Your task to perform on an android device: Open settings on Google Maps Image 0: 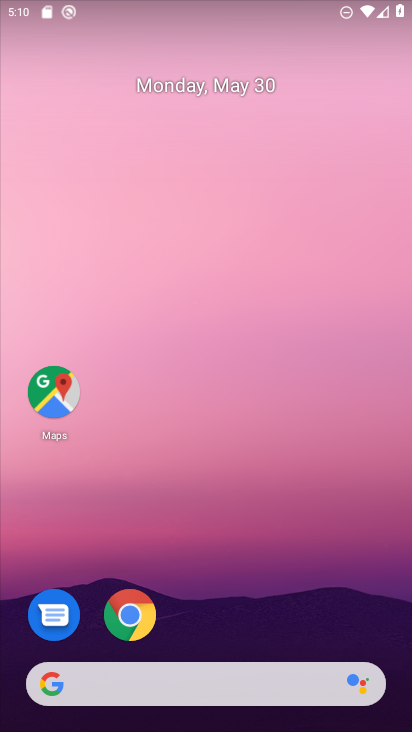
Step 0: click (44, 373)
Your task to perform on an android device: Open settings on Google Maps Image 1: 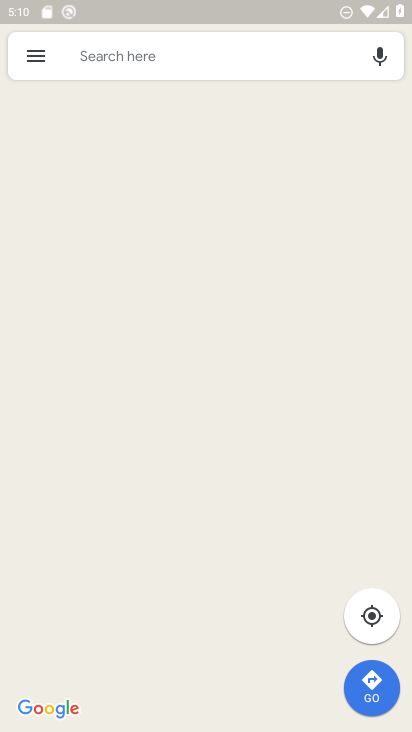
Step 1: click (30, 56)
Your task to perform on an android device: Open settings on Google Maps Image 2: 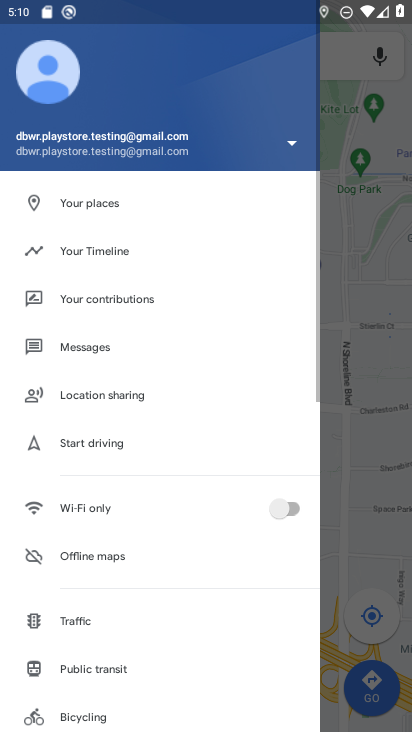
Step 2: drag from (115, 647) to (187, 123)
Your task to perform on an android device: Open settings on Google Maps Image 3: 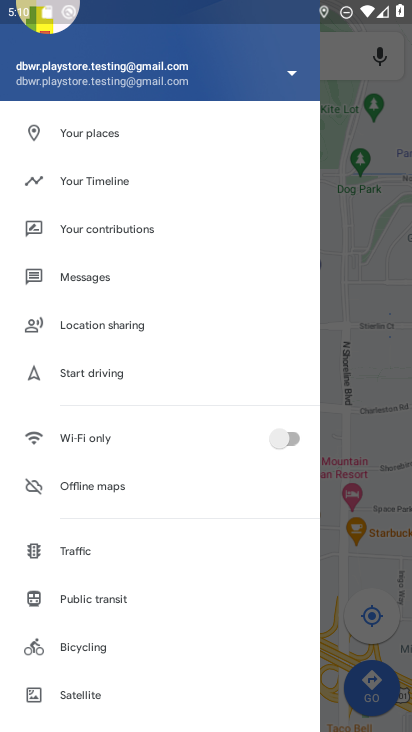
Step 3: drag from (69, 700) to (164, 108)
Your task to perform on an android device: Open settings on Google Maps Image 4: 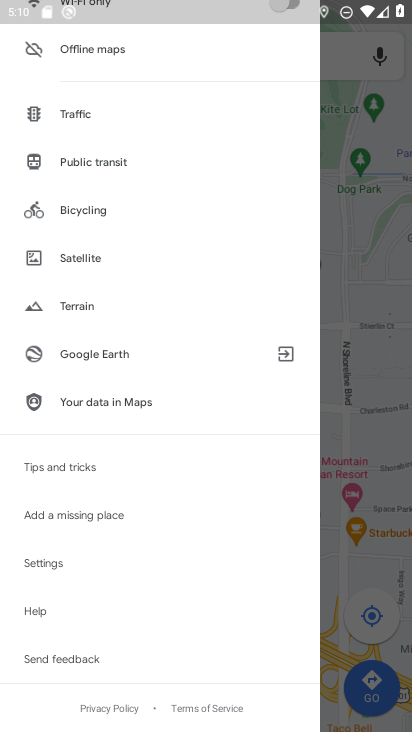
Step 4: drag from (92, 654) to (153, 72)
Your task to perform on an android device: Open settings on Google Maps Image 5: 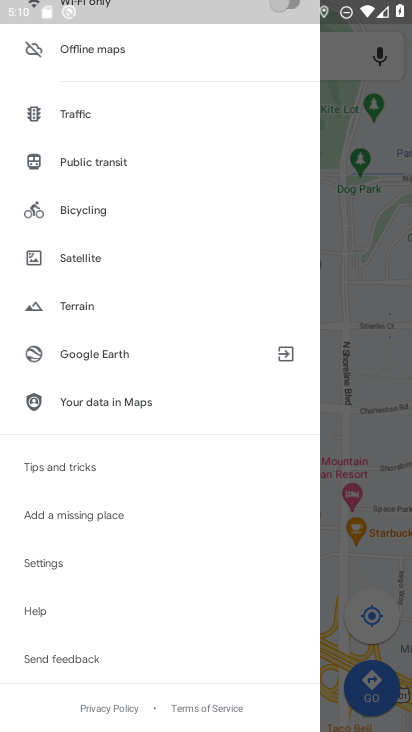
Step 5: click (97, 557)
Your task to perform on an android device: Open settings on Google Maps Image 6: 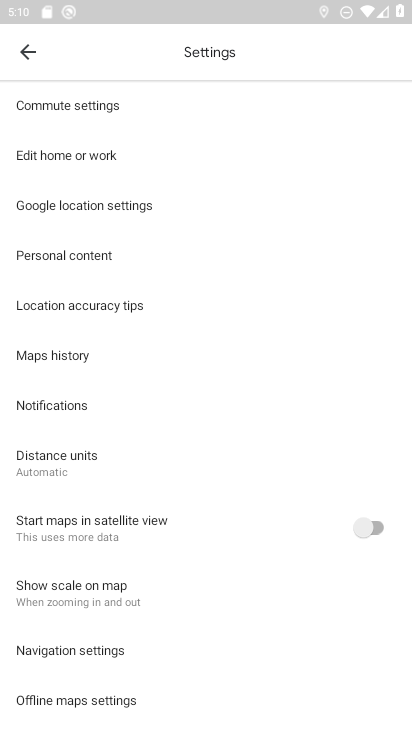
Step 6: task complete